Your task to perform on an android device: turn on showing notifications on the lock screen Image 0: 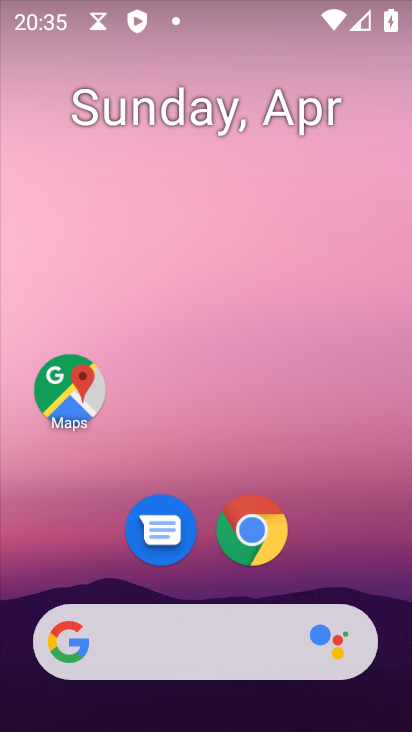
Step 0: drag from (195, 552) to (195, 7)
Your task to perform on an android device: turn on showing notifications on the lock screen Image 1: 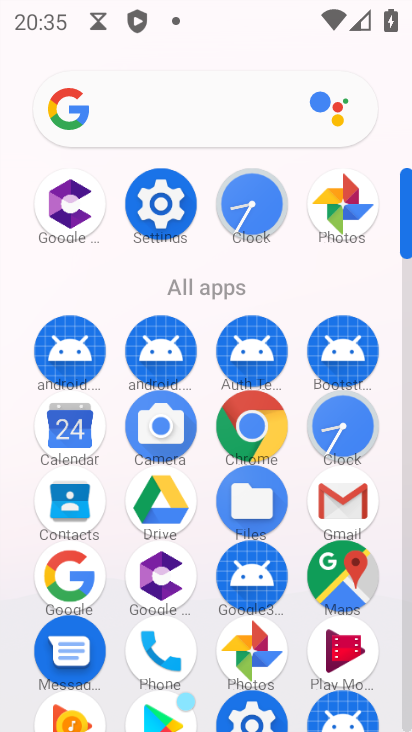
Step 1: click (176, 209)
Your task to perform on an android device: turn on showing notifications on the lock screen Image 2: 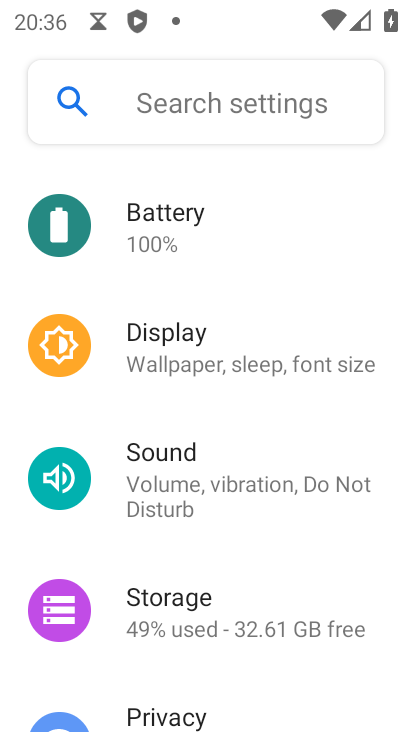
Step 2: drag from (207, 573) to (219, 715)
Your task to perform on an android device: turn on showing notifications on the lock screen Image 3: 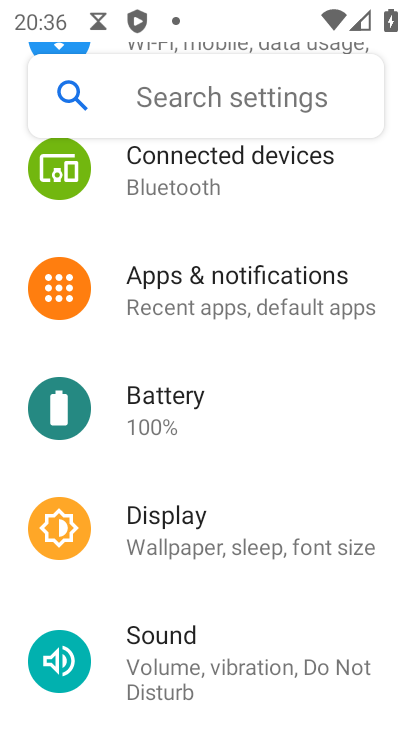
Step 3: click (207, 298)
Your task to perform on an android device: turn on showing notifications on the lock screen Image 4: 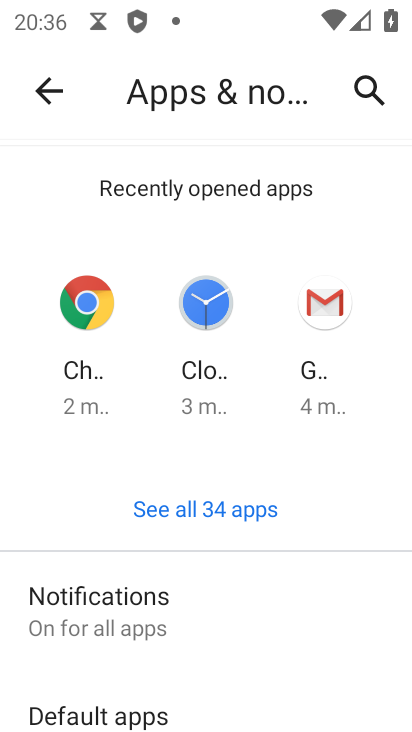
Step 4: click (165, 628)
Your task to perform on an android device: turn on showing notifications on the lock screen Image 5: 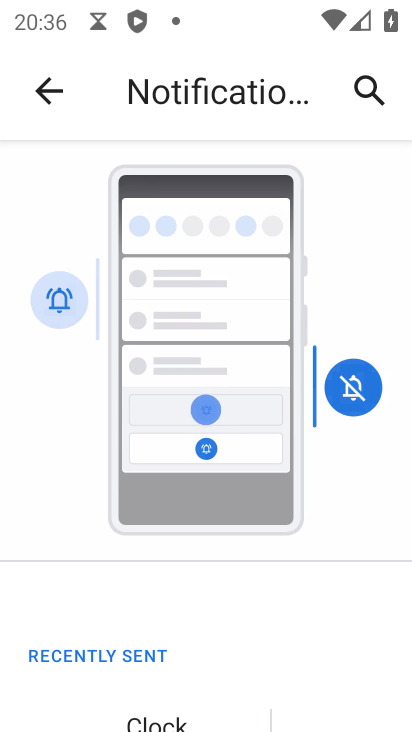
Step 5: drag from (189, 696) to (203, 372)
Your task to perform on an android device: turn on showing notifications on the lock screen Image 6: 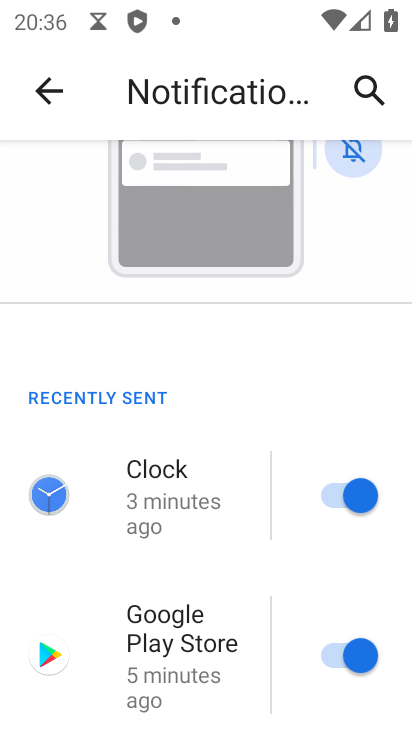
Step 6: drag from (229, 679) to (243, 364)
Your task to perform on an android device: turn on showing notifications on the lock screen Image 7: 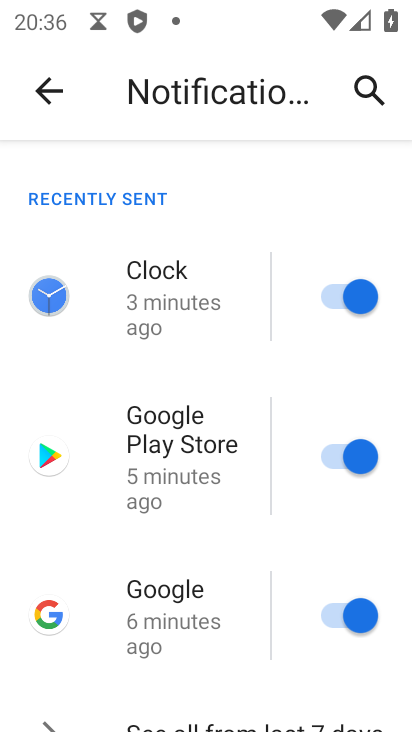
Step 7: drag from (207, 645) to (230, 131)
Your task to perform on an android device: turn on showing notifications on the lock screen Image 8: 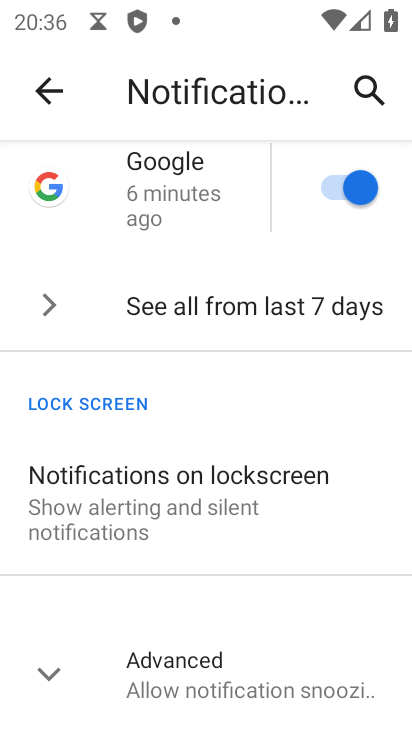
Step 8: click (150, 528)
Your task to perform on an android device: turn on showing notifications on the lock screen Image 9: 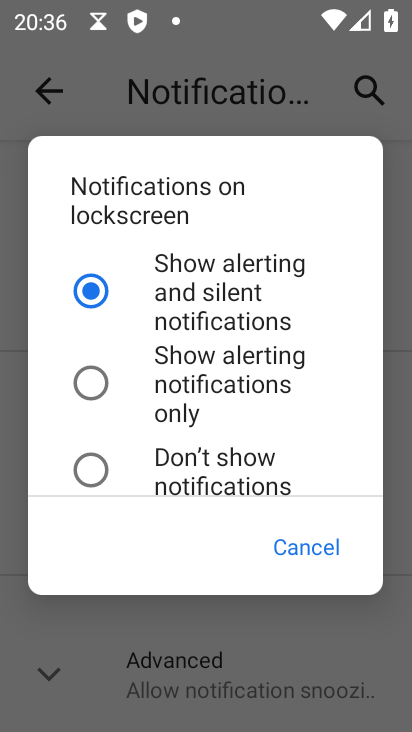
Step 9: task complete